Your task to perform on an android device: Open Youtube and go to "Your channel" Image 0: 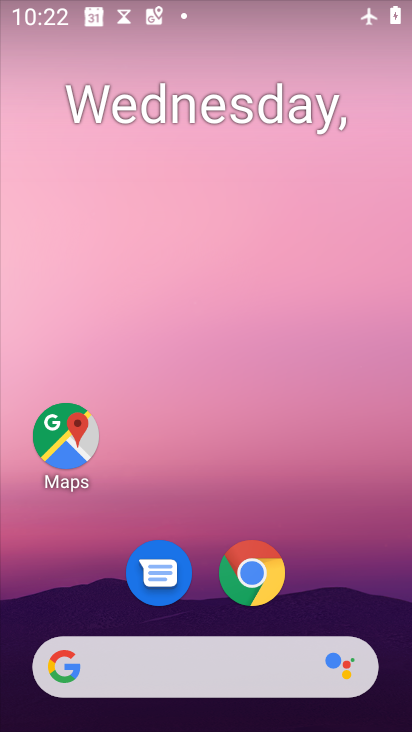
Step 0: drag from (300, 521) to (282, 305)
Your task to perform on an android device: Open Youtube and go to "Your channel" Image 1: 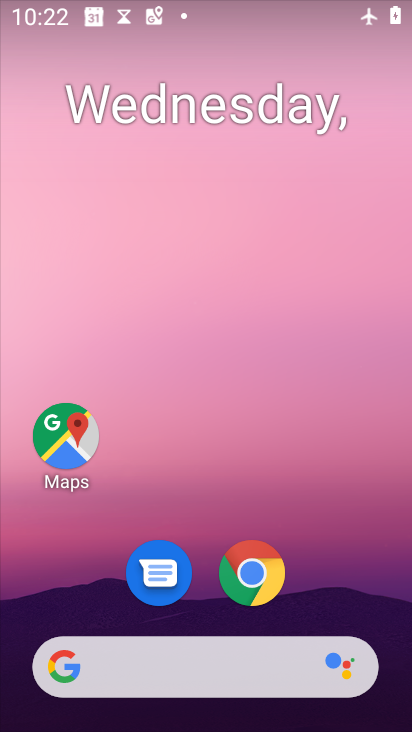
Step 1: drag from (325, 600) to (342, 292)
Your task to perform on an android device: Open Youtube and go to "Your channel" Image 2: 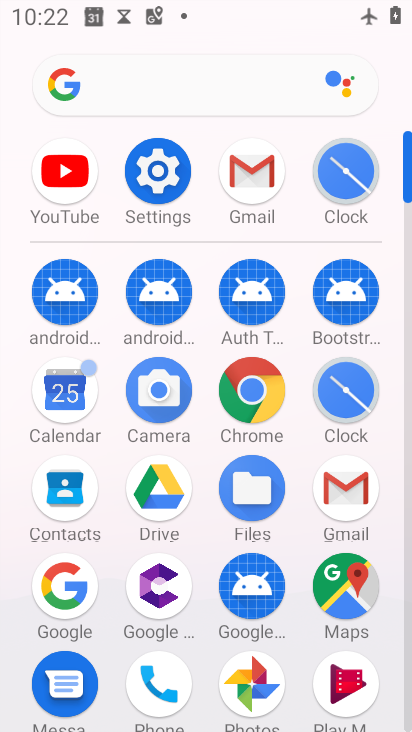
Step 2: drag from (304, 652) to (292, 328)
Your task to perform on an android device: Open Youtube and go to "Your channel" Image 3: 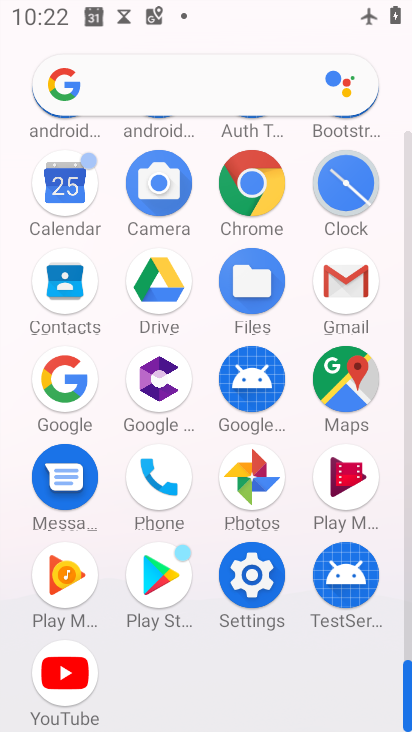
Step 3: click (66, 670)
Your task to perform on an android device: Open Youtube and go to "Your channel" Image 4: 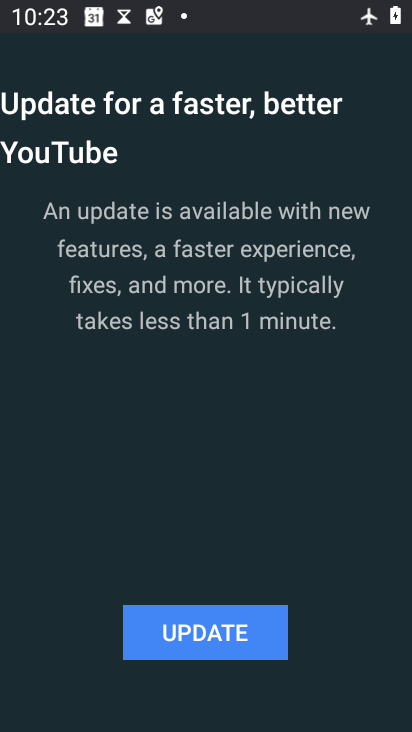
Step 4: task complete